Your task to perform on an android device: Open CNN.com Image 0: 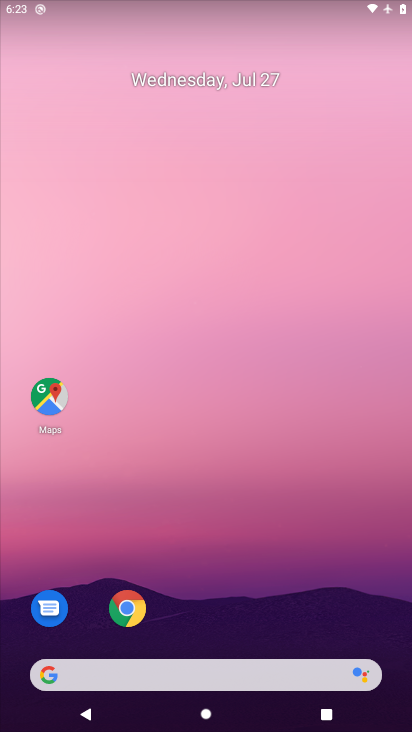
Step 0: press home button
Your task to perform on an android device: Open CNN.com Image 1: 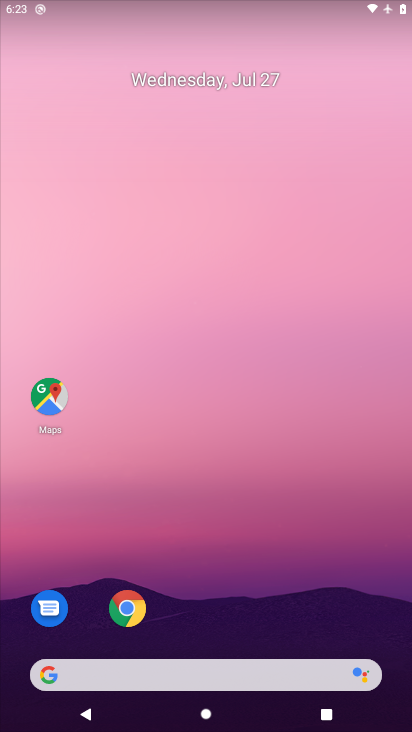
Step 1: click (39, 676)
Your task to perform on an android device: Open CNN.com Image 2: 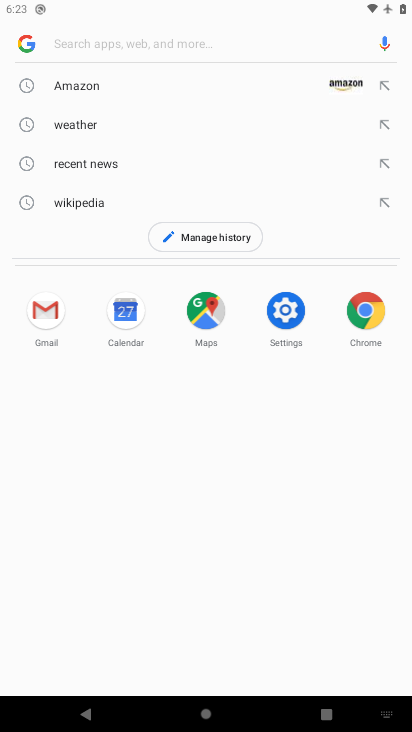
Step 2: press enter
Your task to perform on an android device: Open CNN.com Image 3: 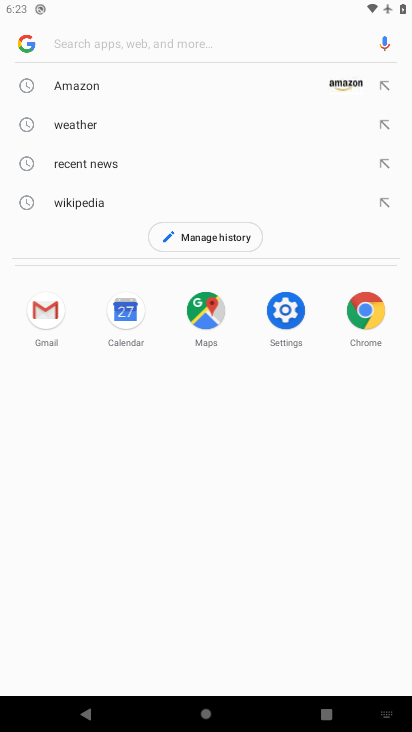
Step 3: type "CNN.com"
Your task to perform on an android device: Open CNN.com Image 4: 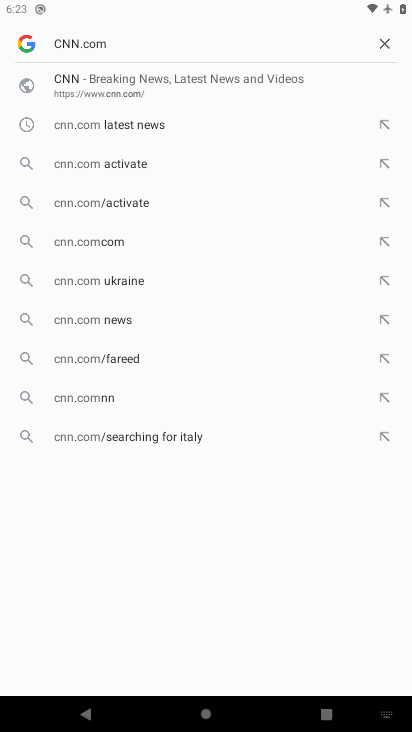
Step 4: press enter
Your task to perform on an android device: Open CNN.com Image 5: 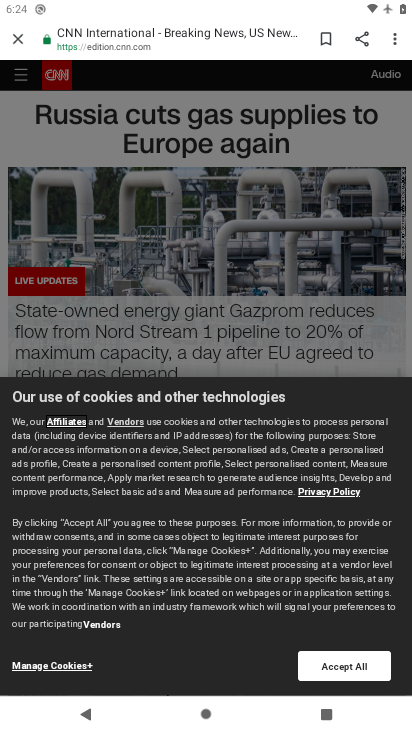
Step 5: click (314, 664)
Your task to perform on an android device: Open CNN.com Image 6: 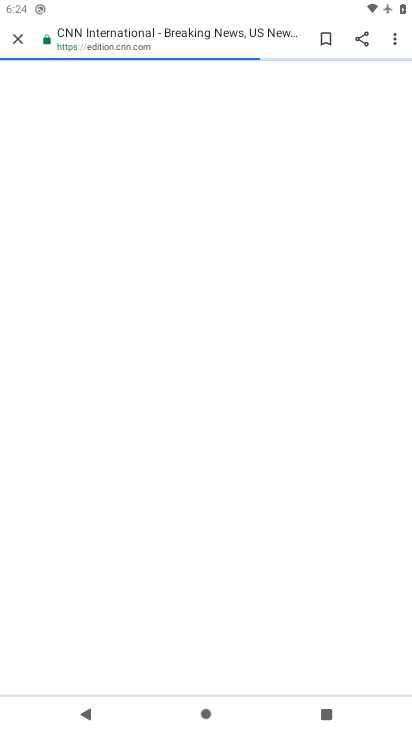
Step 6: task complete